Your task to perform on an android device: Open the map Image 0: 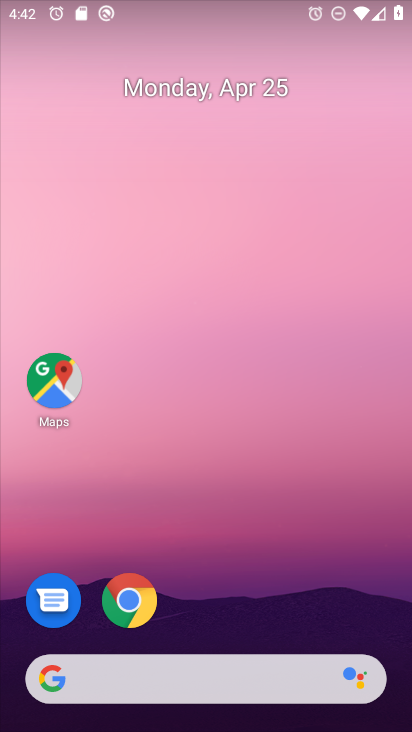
Step 0: drag from (269, 536) to (216, 38)
Your task to perform on an android device: Open the map Image 1: 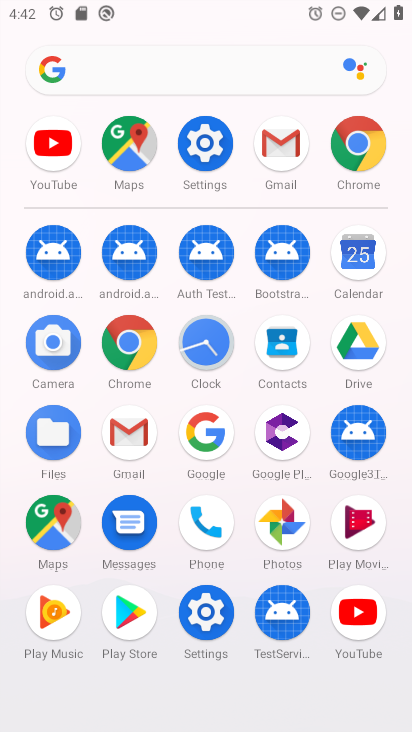
Step 1: drag from (15, 591) to (26, 305)
Your task to perform on an android device: Open the map Image 2: 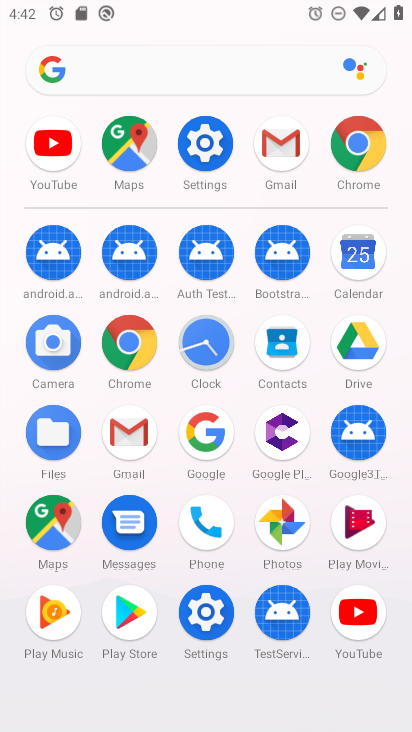
Step 2: drag from (22, 456) to (5, 205)
Your task to perform on an android device: Open the map Image 3: 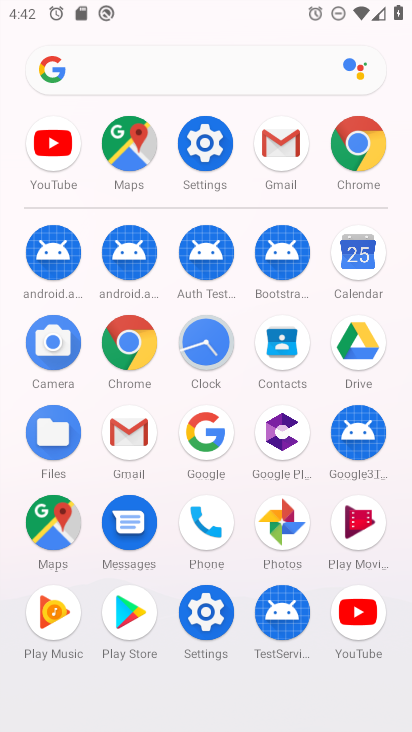
Step 3: click (51, 524)
Your task to perform on an android device: Open the map Image 4: 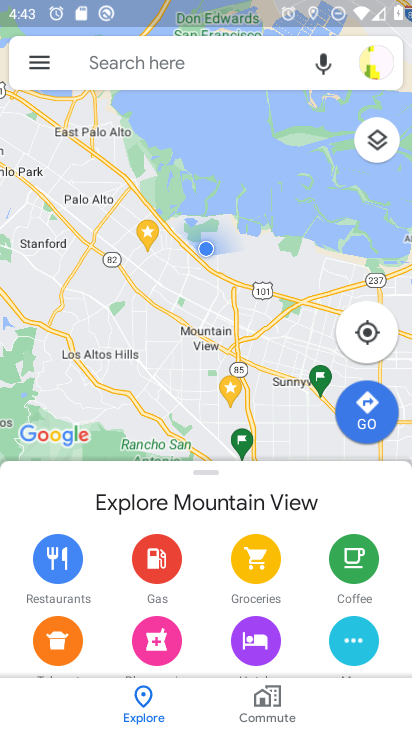
Step 4: task complete